Your task to perform on an android device: Open CNN.com Image 0: 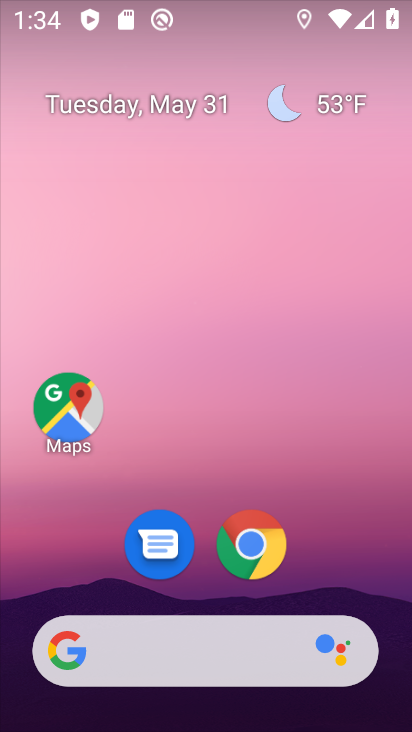
Step 0: click (246, 522)
Your task to perform on an android device: Open CNN.com Image 1: 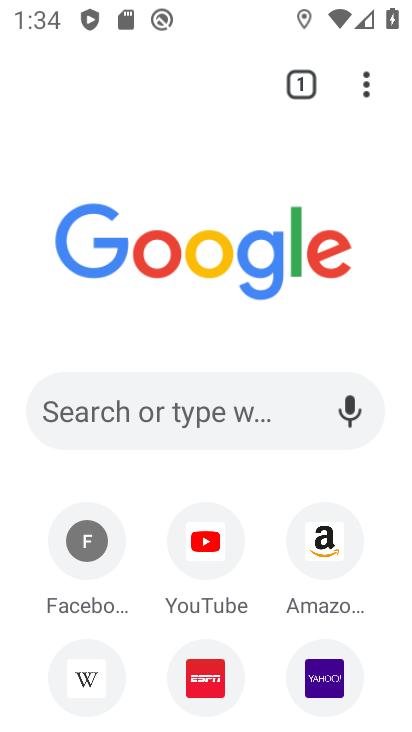
Step 1: click (173, 433)
Your task to perform on an android device: Open CNN.com Image 2: 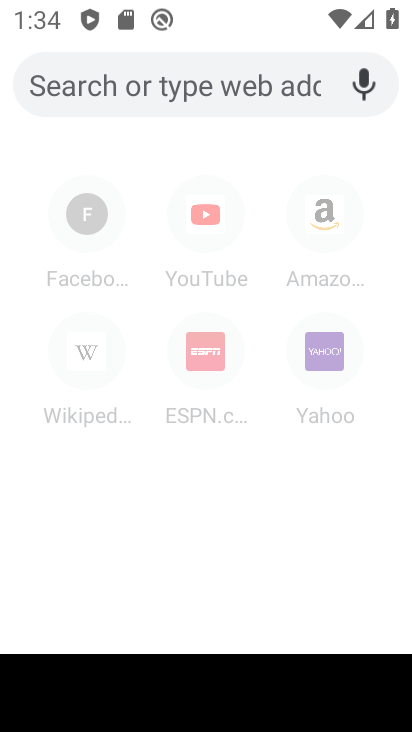
Step 2: type "cnn.com"
Your task to perform on an android device: Open CNN.com Image 3: 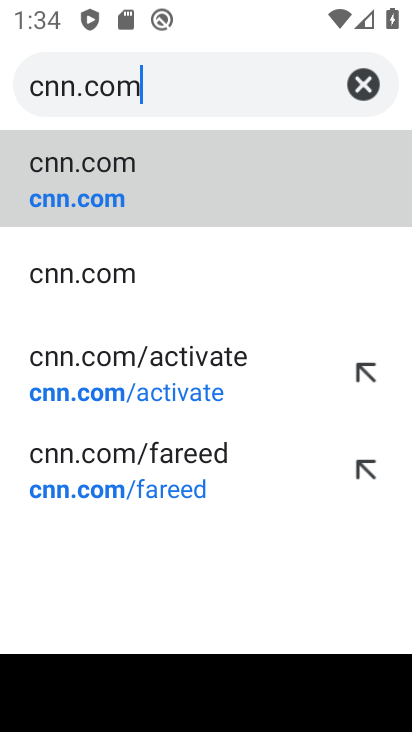
Step 3: click (138, 177)
Your task to perform on an android device: Open CNN.com Image 4: 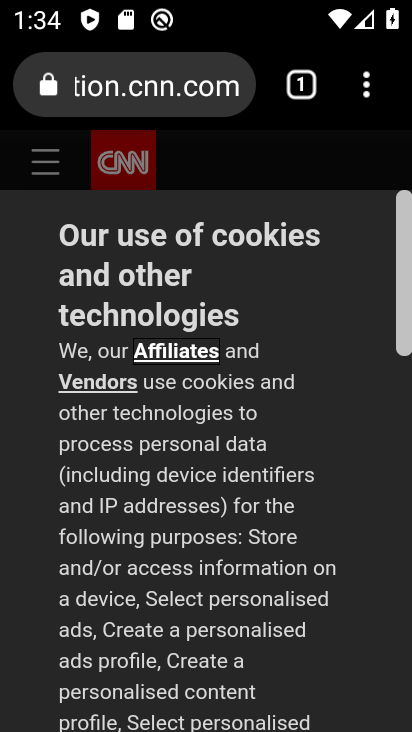
Step 4: drag from (353, 179) to (390, 34)
Your task to perform on an android device: Open CNN.com Image 5: 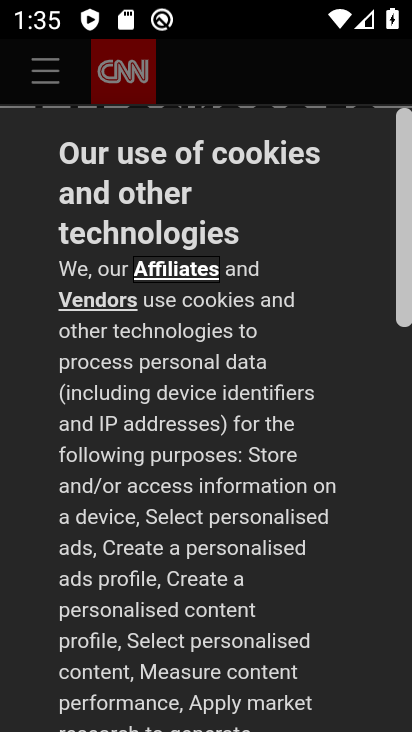
Step 5: drag from (191, 608) to (225, 160)
Your task to perform on an android device: Open CNN.com Image 6: 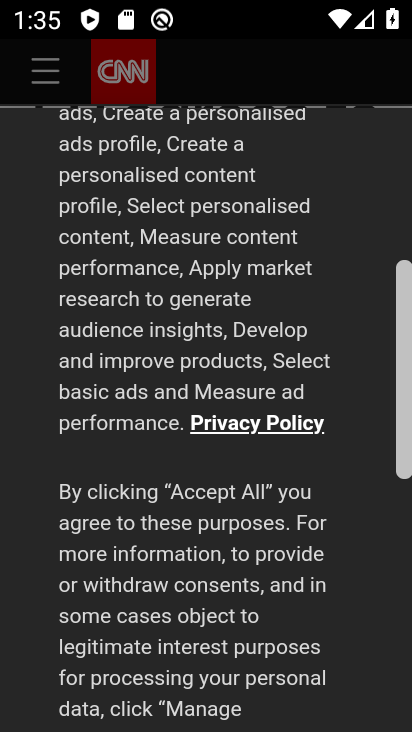
Step 6: drag from (204, 696) to (195, 118)
Your task to perform on an android device: Open CNN.com Image 7: 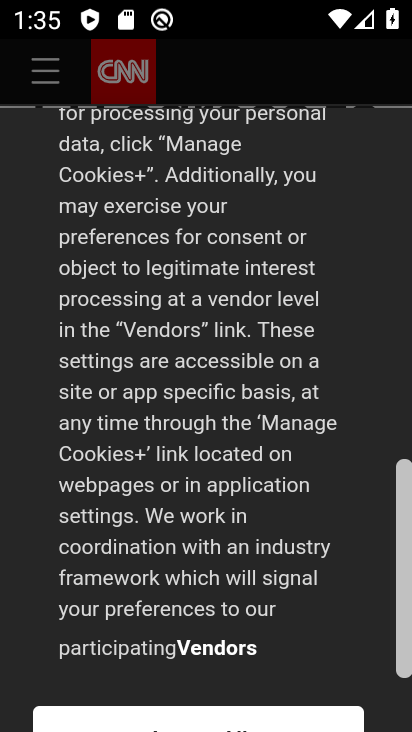
Step 7: drag from (217, 613) to (222, 208)
Your task to perform on an android device: Open CNN.com Image 8: 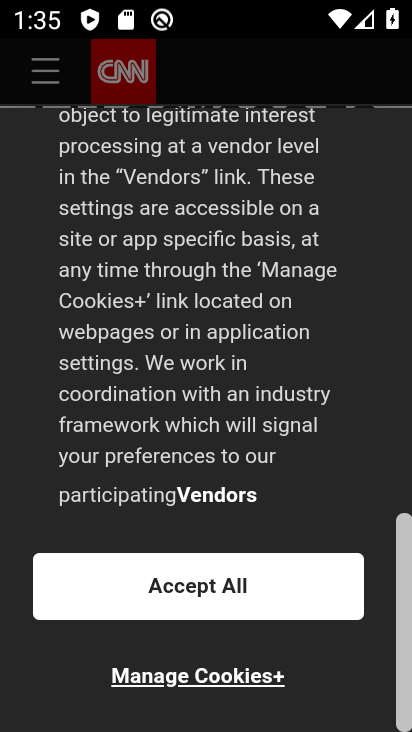
Step 8: click (172, 570)
Your task to perform on an android device: Open CNN.com Image 9: 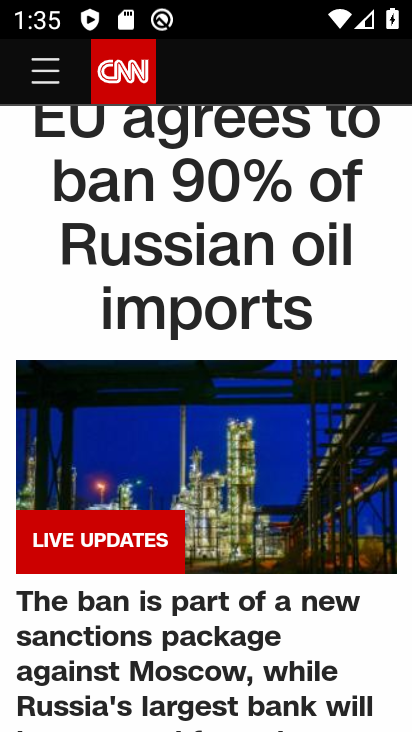
Step 9: task complete